Your task to perform on an android device: Open Wikipedia Image 0: 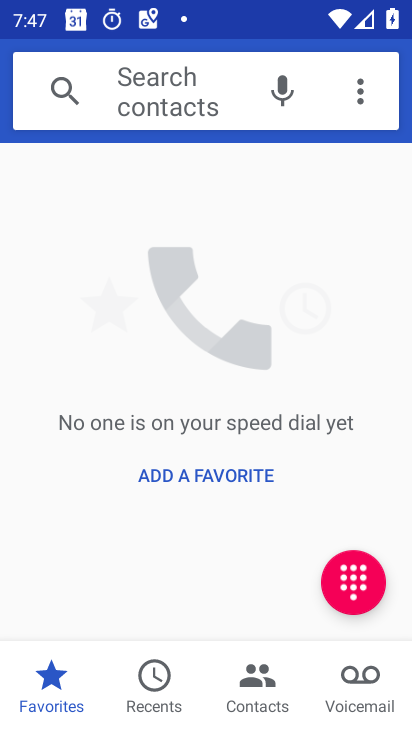
Step 0: press home button
Your task to perform on an android device: Open Wikipedia Image 1: 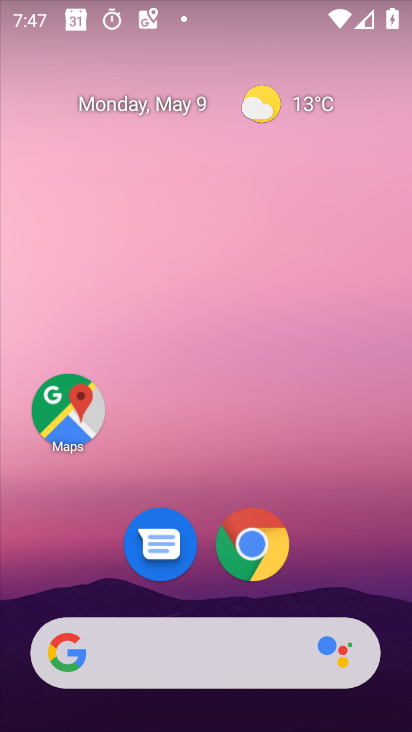
Step 1: click (236, 537)
Your task to perform on an android device: Open Wikipedia Image 2: 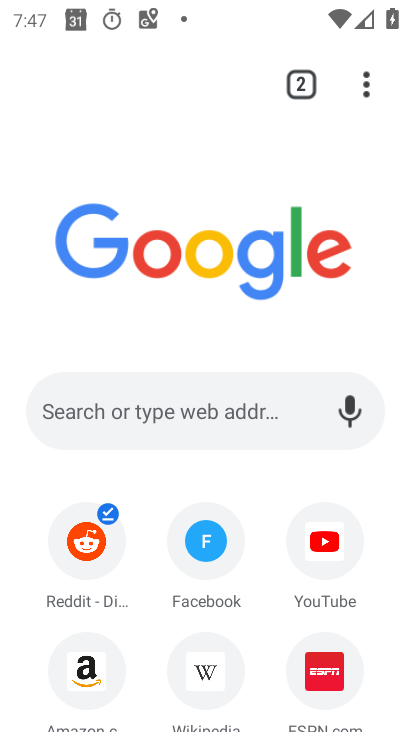
Step 2: drag from (399, 636) to (402, 402)
Your task to perform on an android device: Open Wikipedia Image 3: 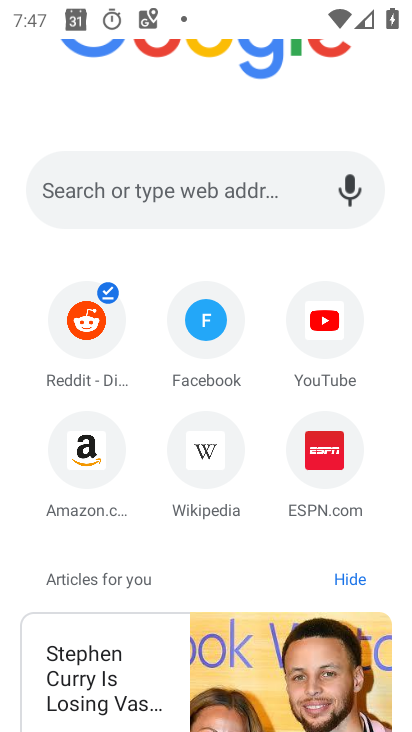
Step 3: click (212, 480)
Your task to perform on an android device: Open Wikipedia Image 4: 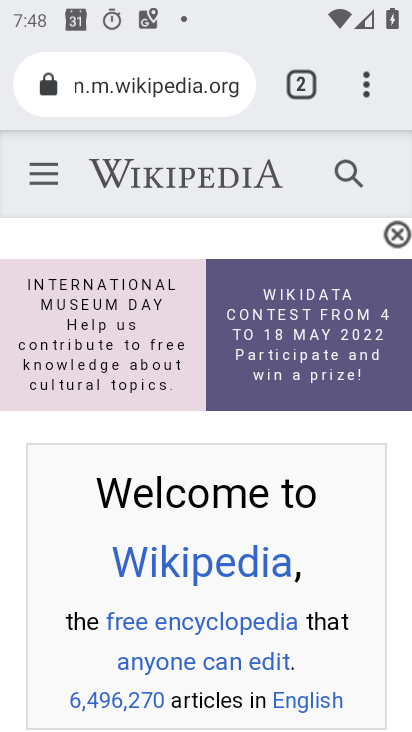
Step 4: task complete